Your task to perform on an android device: Go to Yahoo.com Image 0: 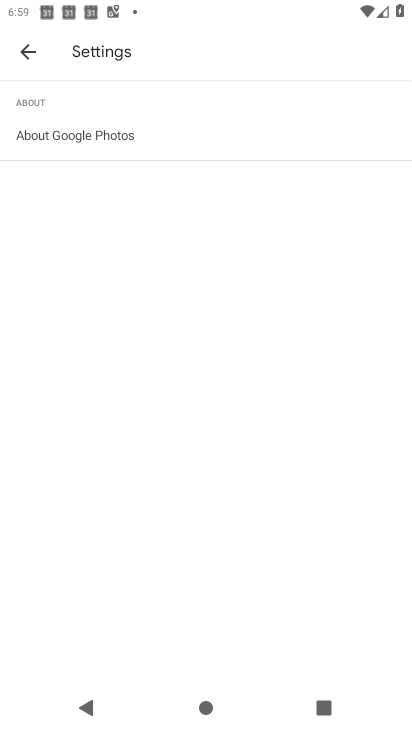
Step 0: press home button
Your task to perform on an android device: Go to Yahoo.com Image 1: 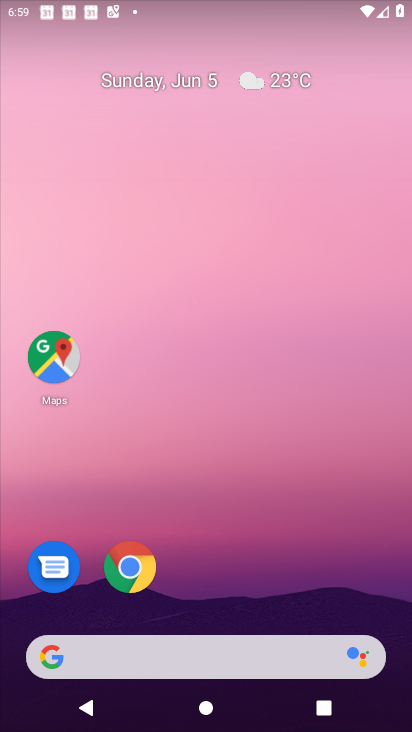
Step 1: click (397, 639)
Your task to perform on an android device: Go to Yahoo.com Image 2: 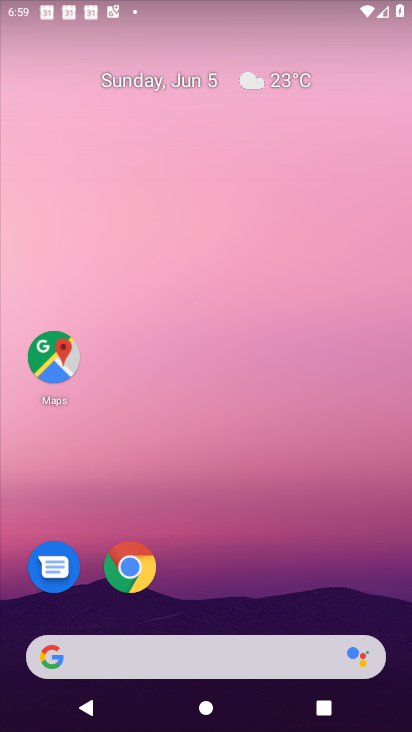
Step 2: drag from (388, 444) to (256, 79)
Your task to perform on an android device: Go to Yahoo.com Image 3: 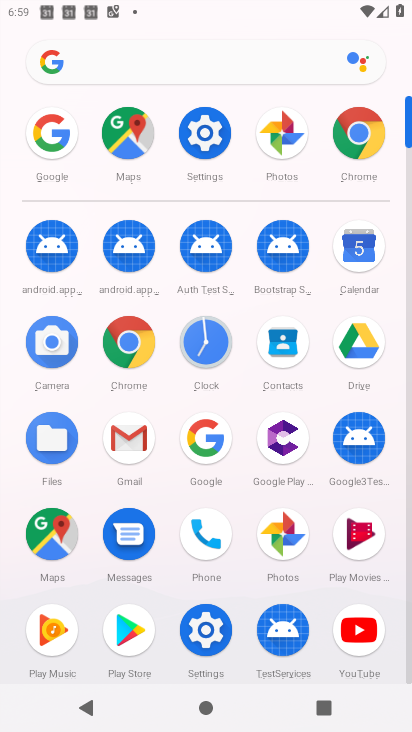
Step 3: click (216, 439)
Your task to perform on an android device: Go to Yahoo.com Image 4: 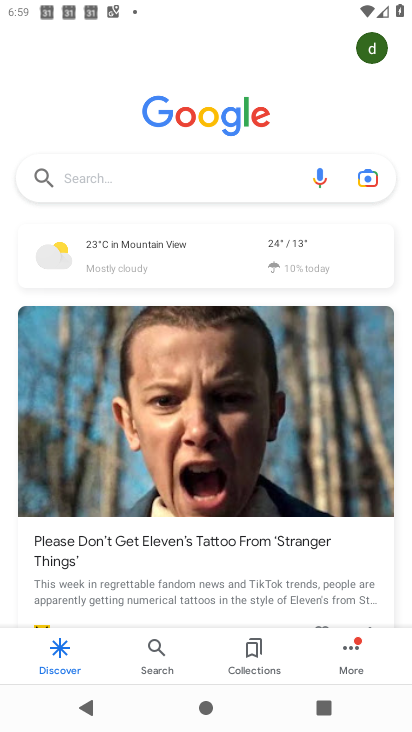
Step 4: click (127, 160)
Your task to perform on an android device: Go to Yahoo.com Image 5: 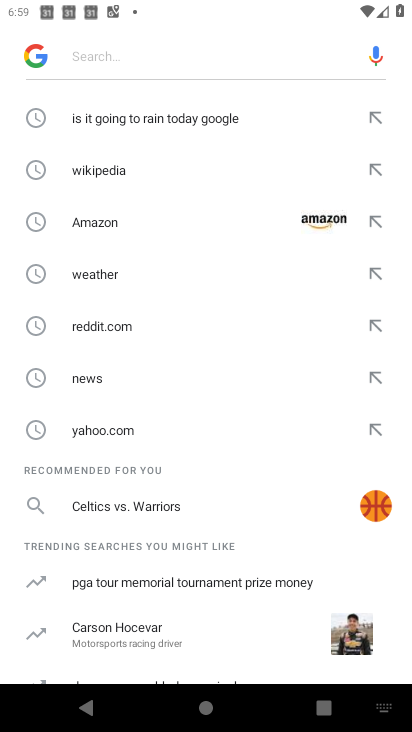
Step 5: click (159, 429)
Your task to perform on an android device: Go to Yahoo.com Image 6: 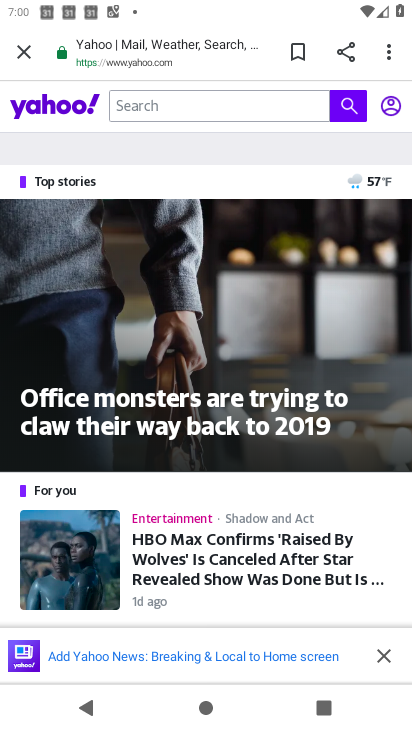
Step 6: task complete